Your task to perform on an android device: turn on the 12-hour format for clock Image 0: 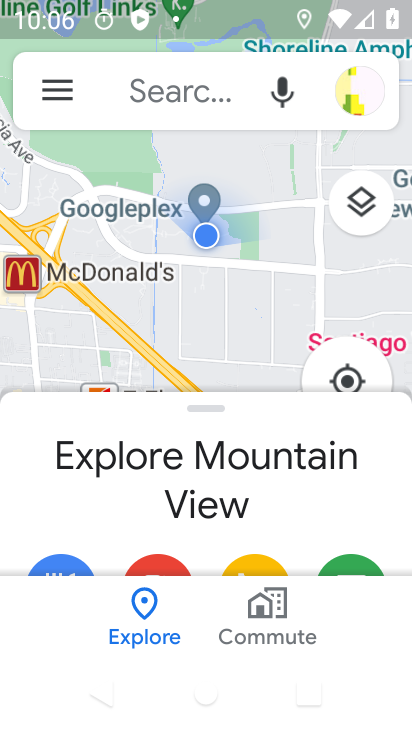
Step 0: press home button
Your task to perform on an android device: turn on the 12-hour format for clock Image 1: 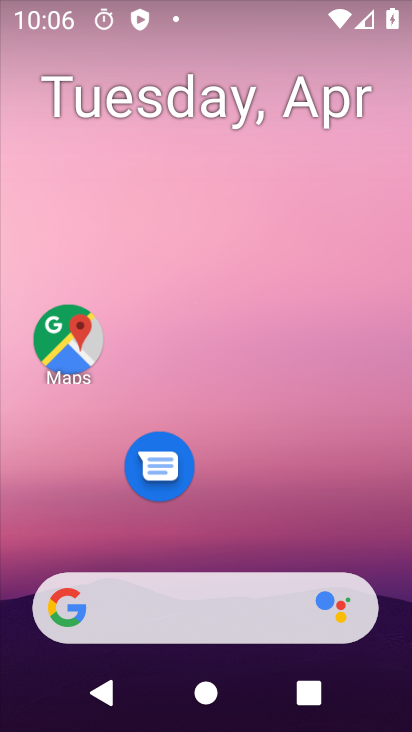
Step 1: drag from (262, 508) to (279, 34)
Your task to perform on an android device: turn on the 12-hour format for clock Image 2: 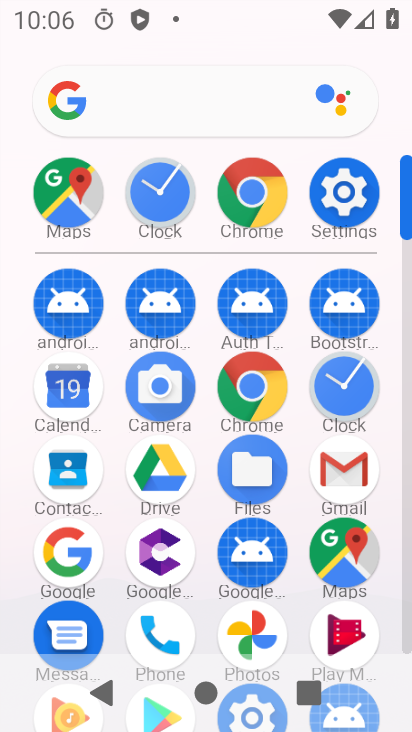
Step 2: click (342, 410)
Your task to perform on an android device: turn on the 12-hour format for clock Image 3: 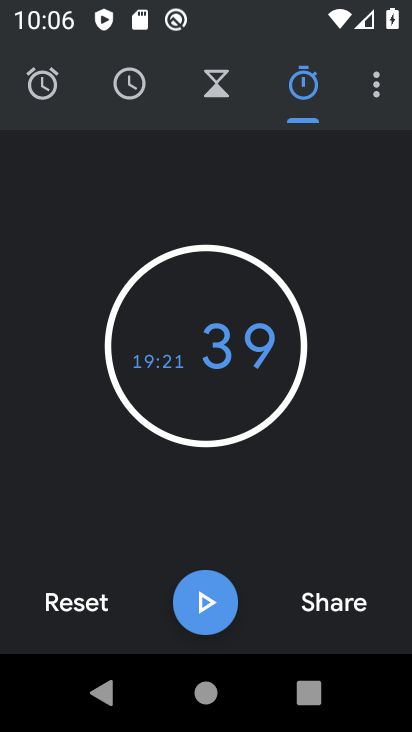
Step 3: click (377, 94)
Your task to perform on an android device: turn on the 12-hour format for clock Image 4: 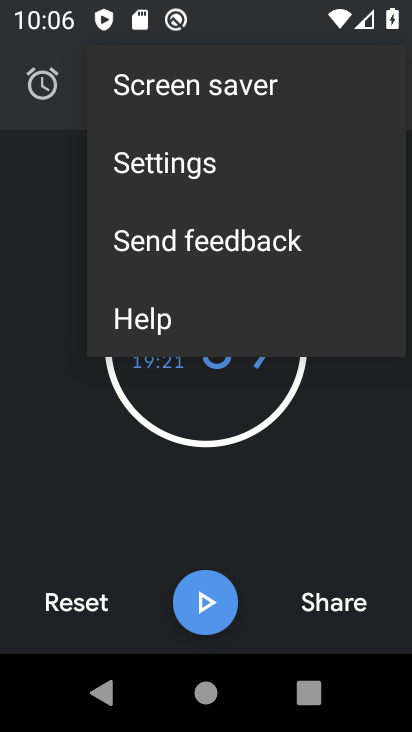
Step 4: click (157, 154)
Your task to perform on an android device: turn on the 12-hour format for clock Image 5: 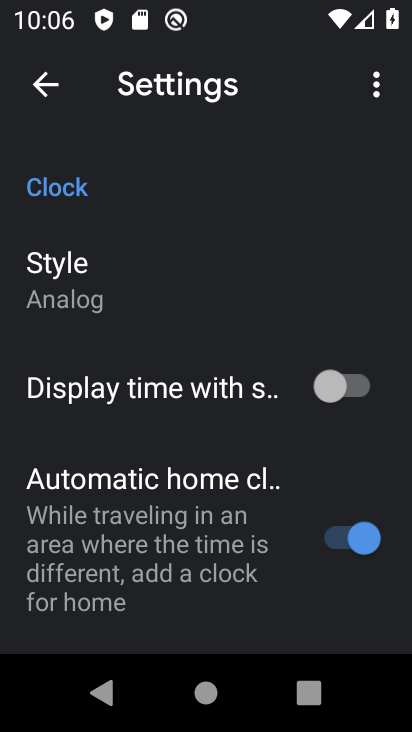
Step 5: drag from (189, 499) to (203, 667)
Your task to perform on an android device: turn on the 12-hour format for clock Image 6: 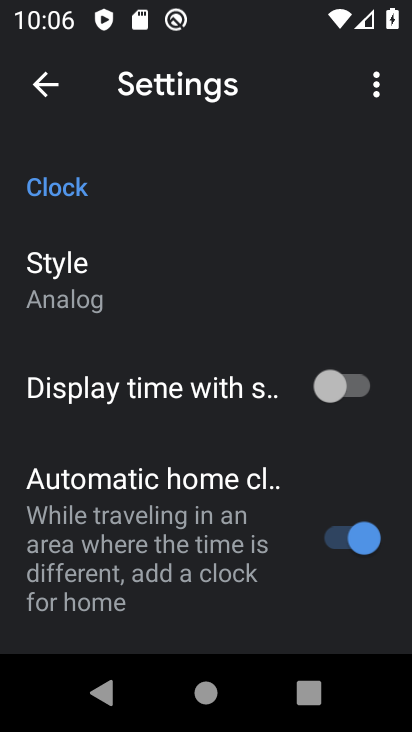
Step 6: drag from (145, 555) to (157, 163)
Your task to perform on an android device: turn on the 12-hour format for clock Image 7: 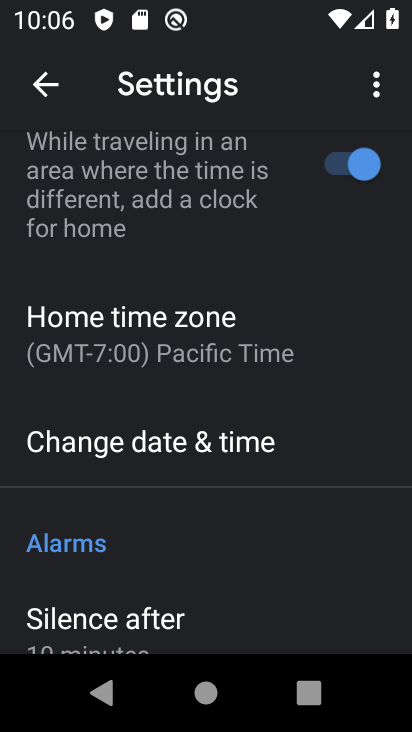
Step 7: click (225, 467)
Your task to perform on an android device: turn on the 12-hour format for clock Image 8: 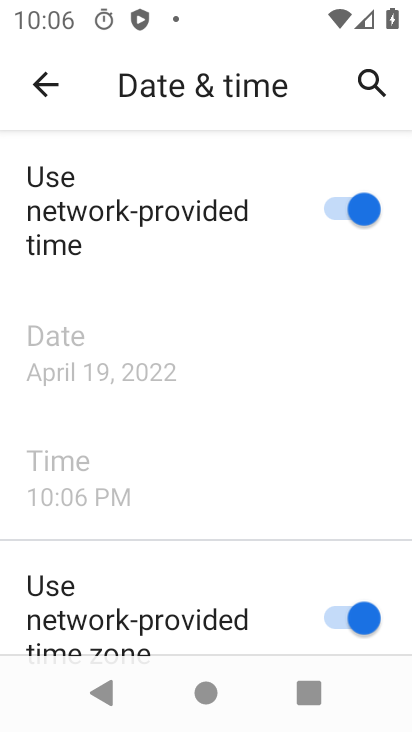
Step 8: task complete